Your task to perform on an android device: Go to ESPN.com Image 0: 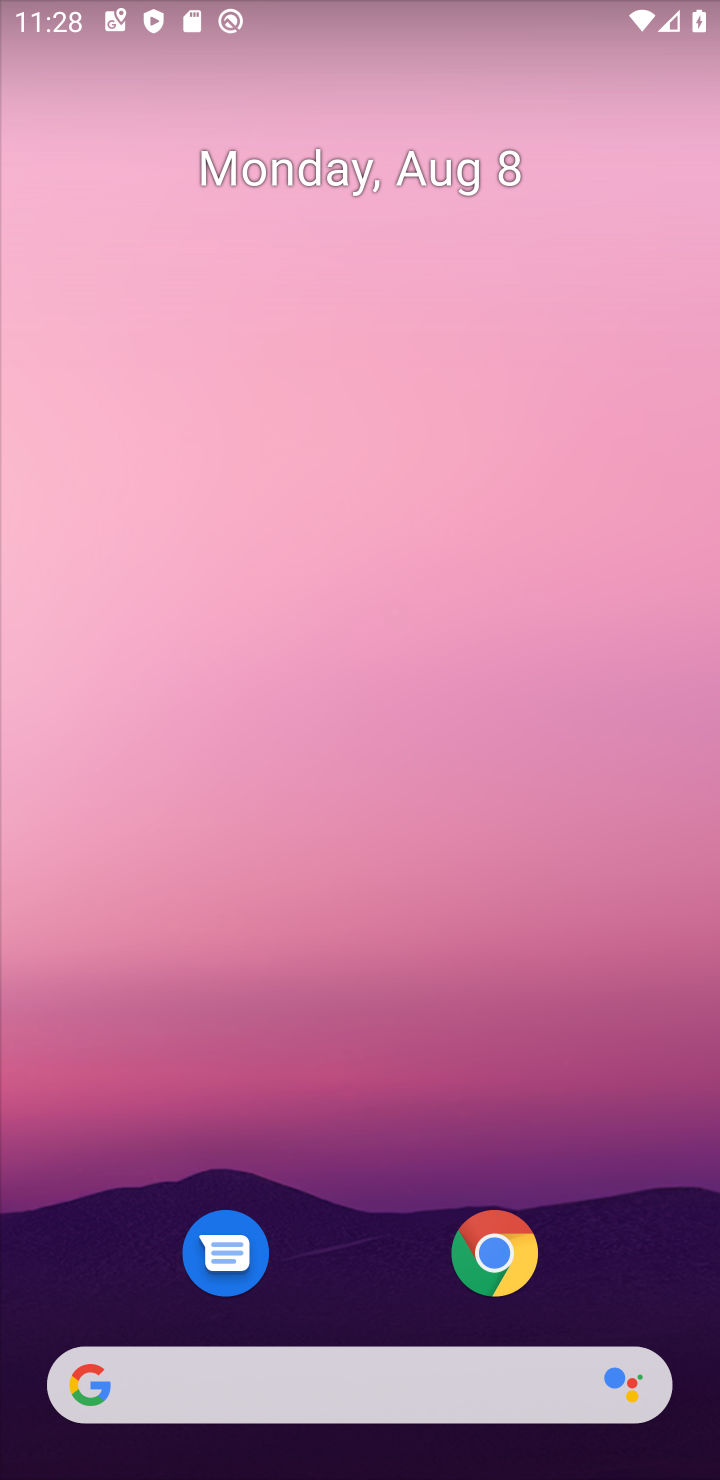
Step 0: click (365, 327)
Your task to perform on an android device: Go to ESPN.com Image 1: 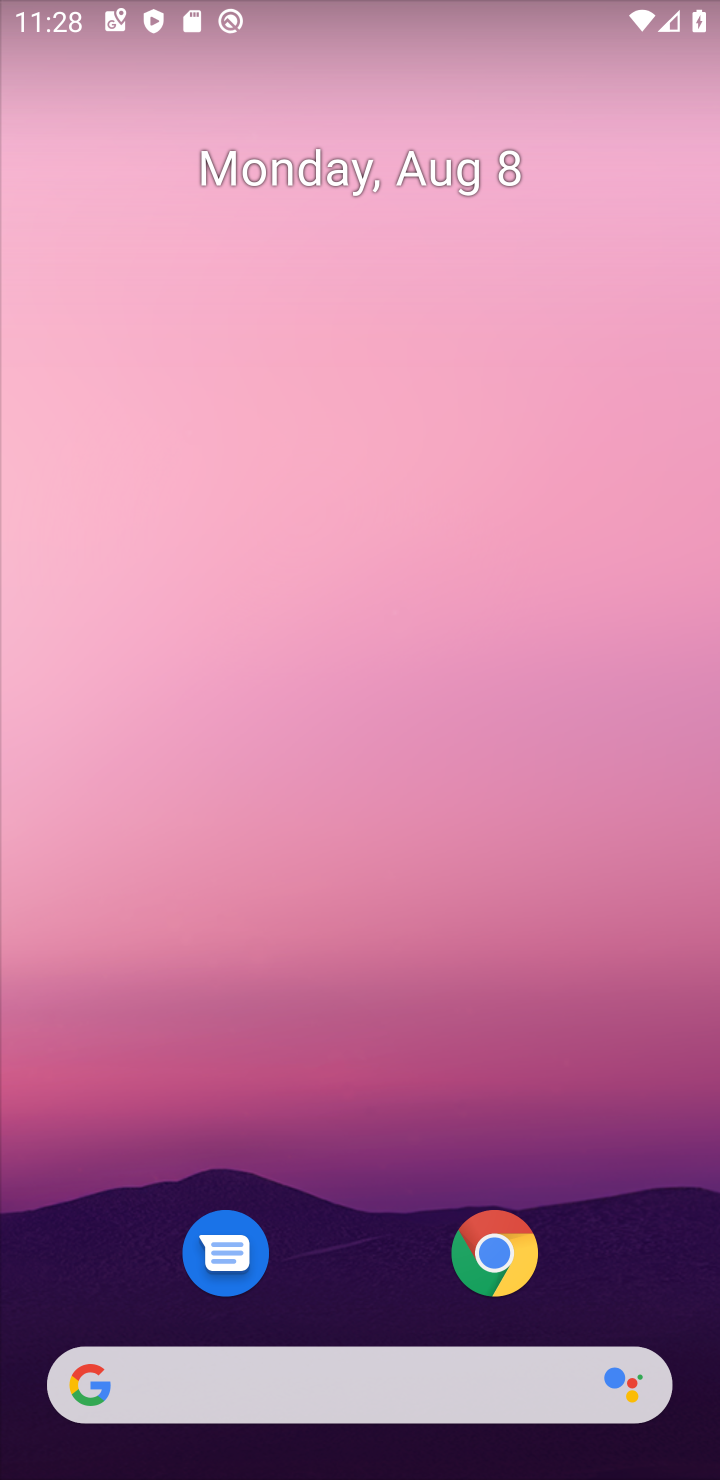
Step 1: drag from (368, 1206) to (370, 457)
Your task to perform on an android device: Go to ESPN.com Image 2: 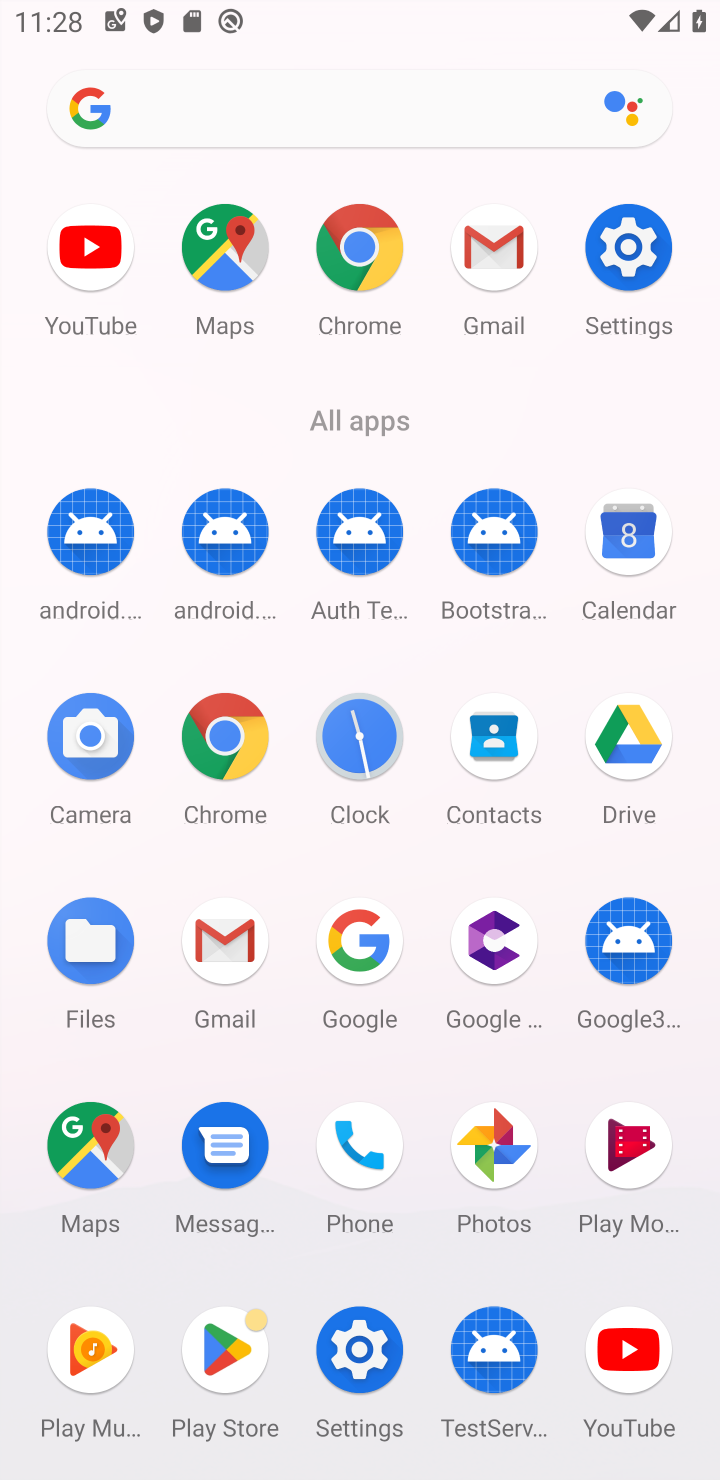
Step 2: click (333, 236)
Your task to perform on an android device: Go to ESPN.com Image 3: 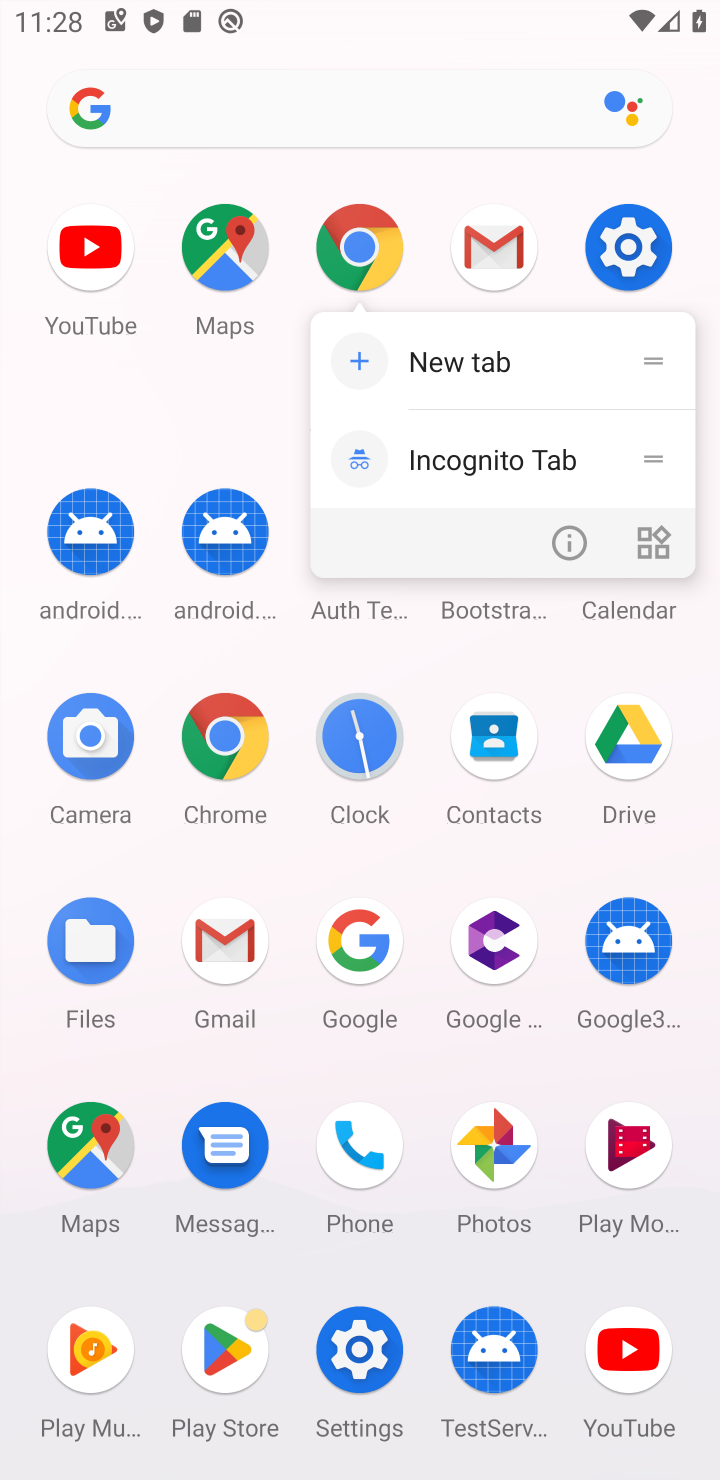
Step 3: click (341, 240)
Your task to perform on an android device: Go to ESPN.com Image 4: 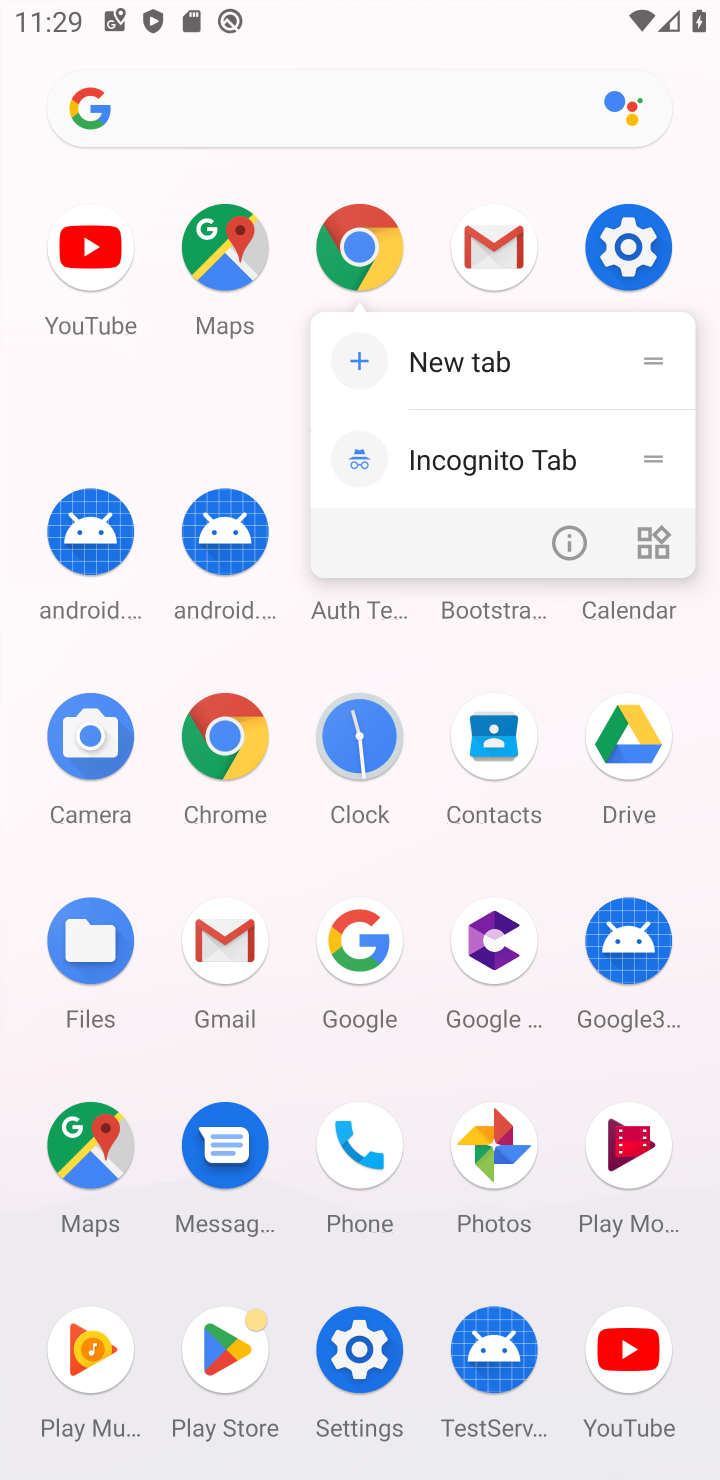
Step 4: click (376, 224)
Your task to perform on an android device: Go to ESPN.com Image 5: 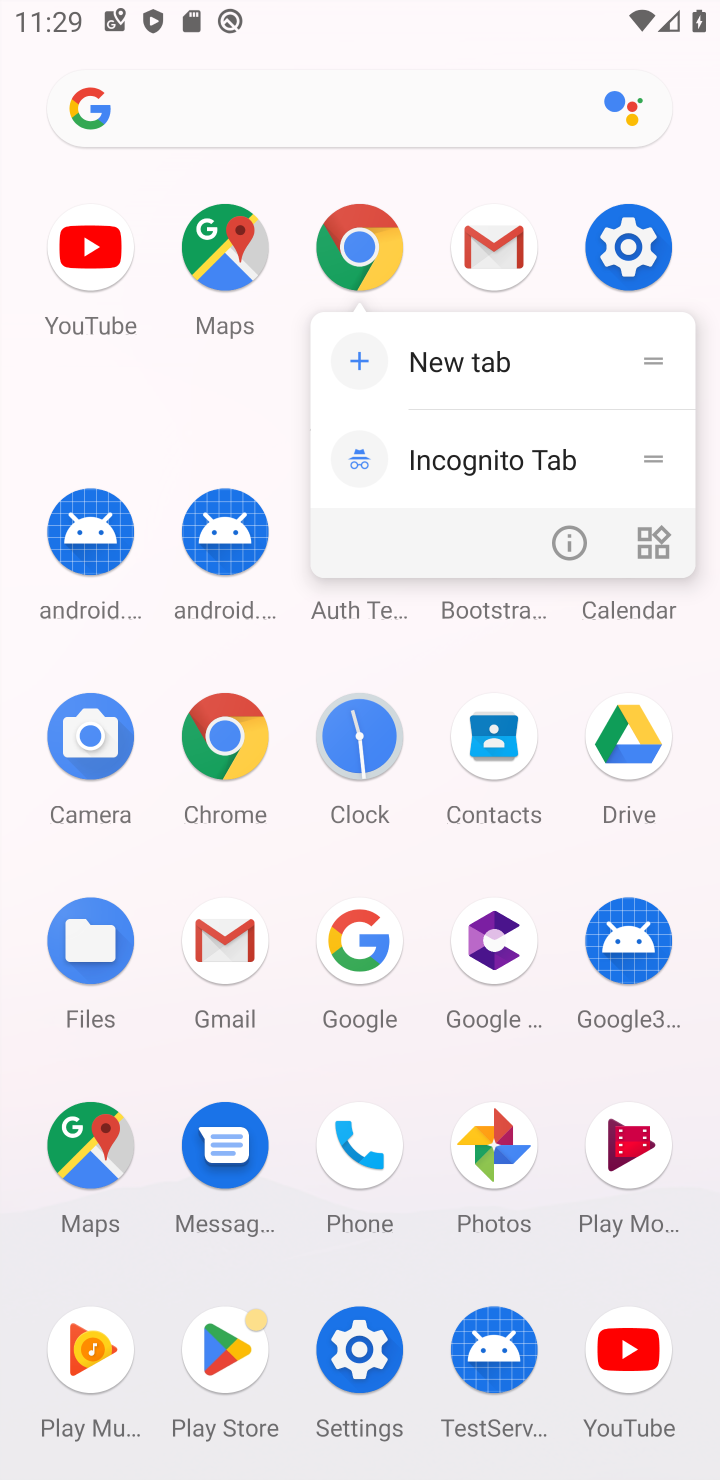
Step 5: click (376, 224)
Your task to perform on an android device: Go to ESPN.com Image 6: 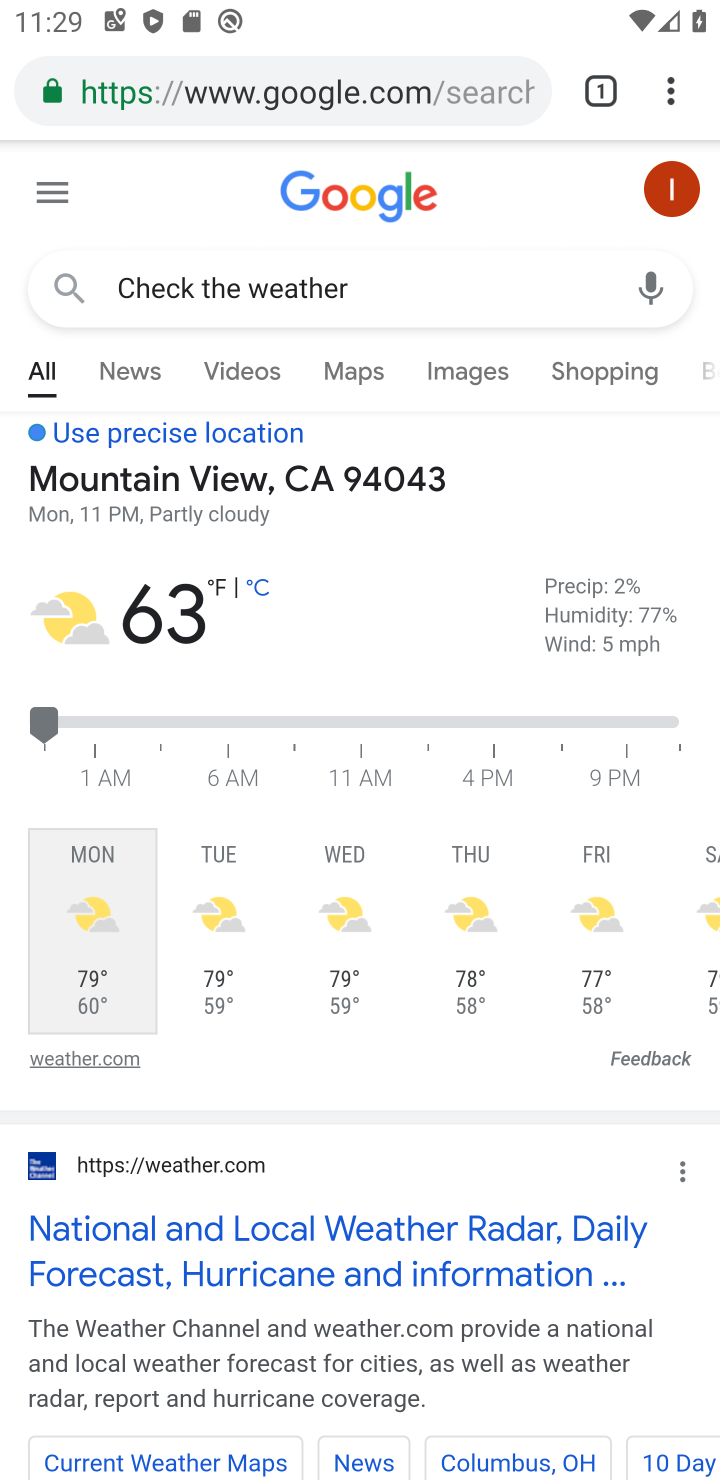
Step 6: click (660, 101)
Your task to perform on an android device: Go to ESPN.com Image 7: 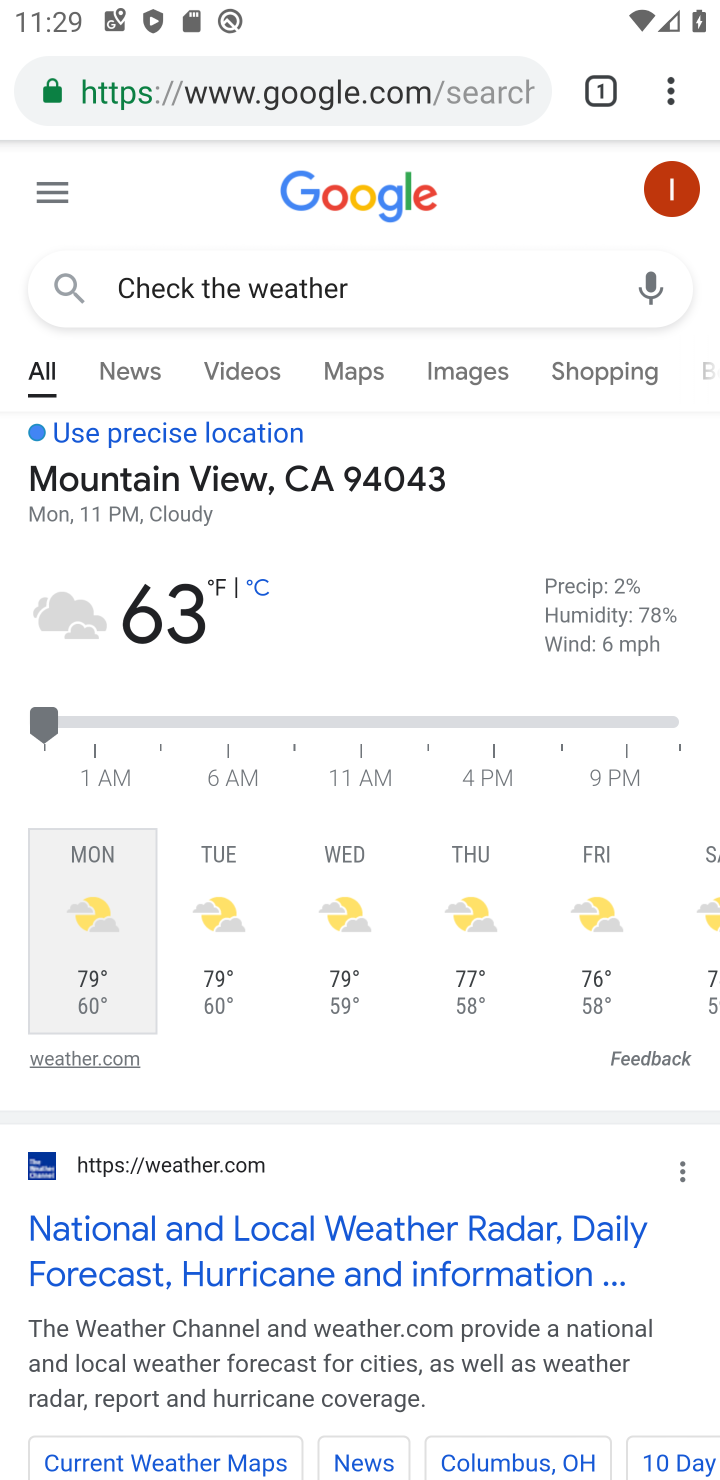
Step 7: click (646, 80)
Your task to perform on an android device: Go to ESPN.com Image 8: 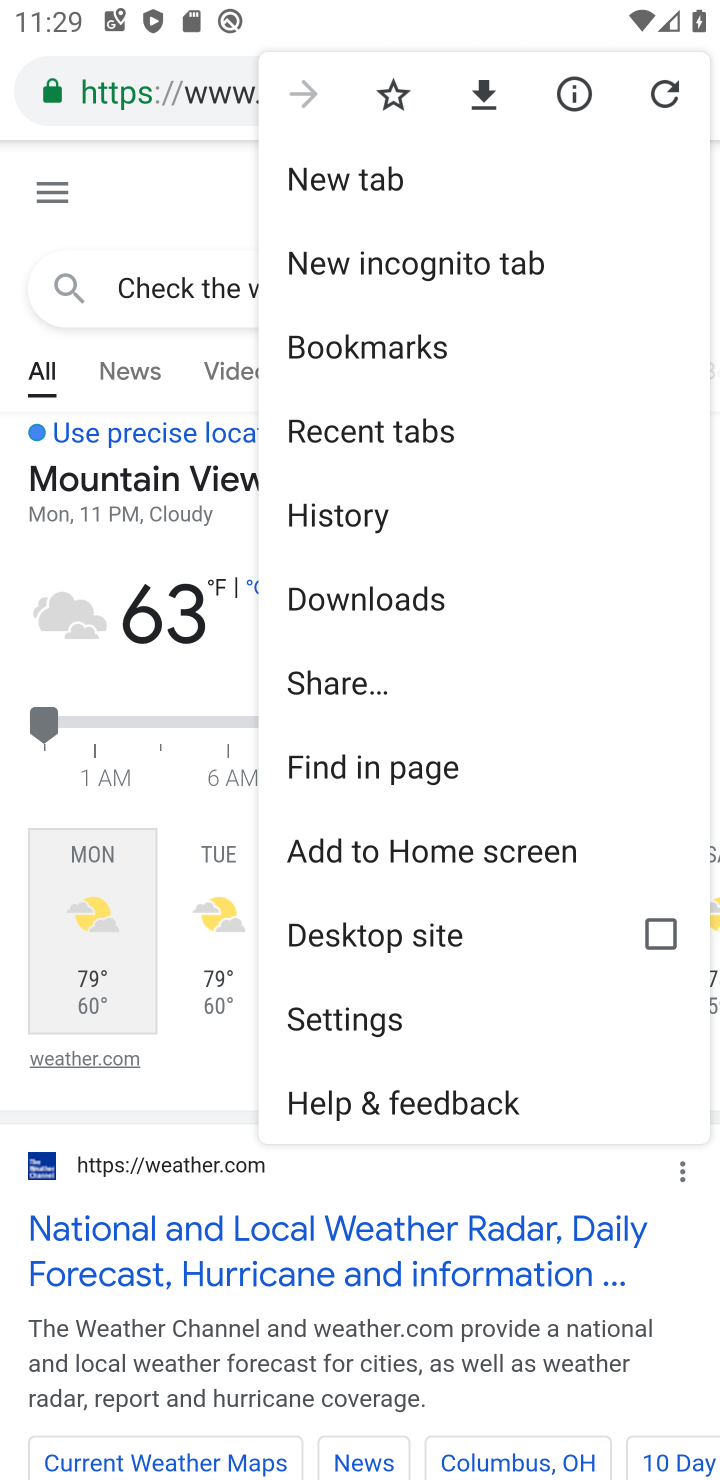
Step 8: click (310, 164)
Your task to perform on an android device: Go to ESPN.com Image 9: 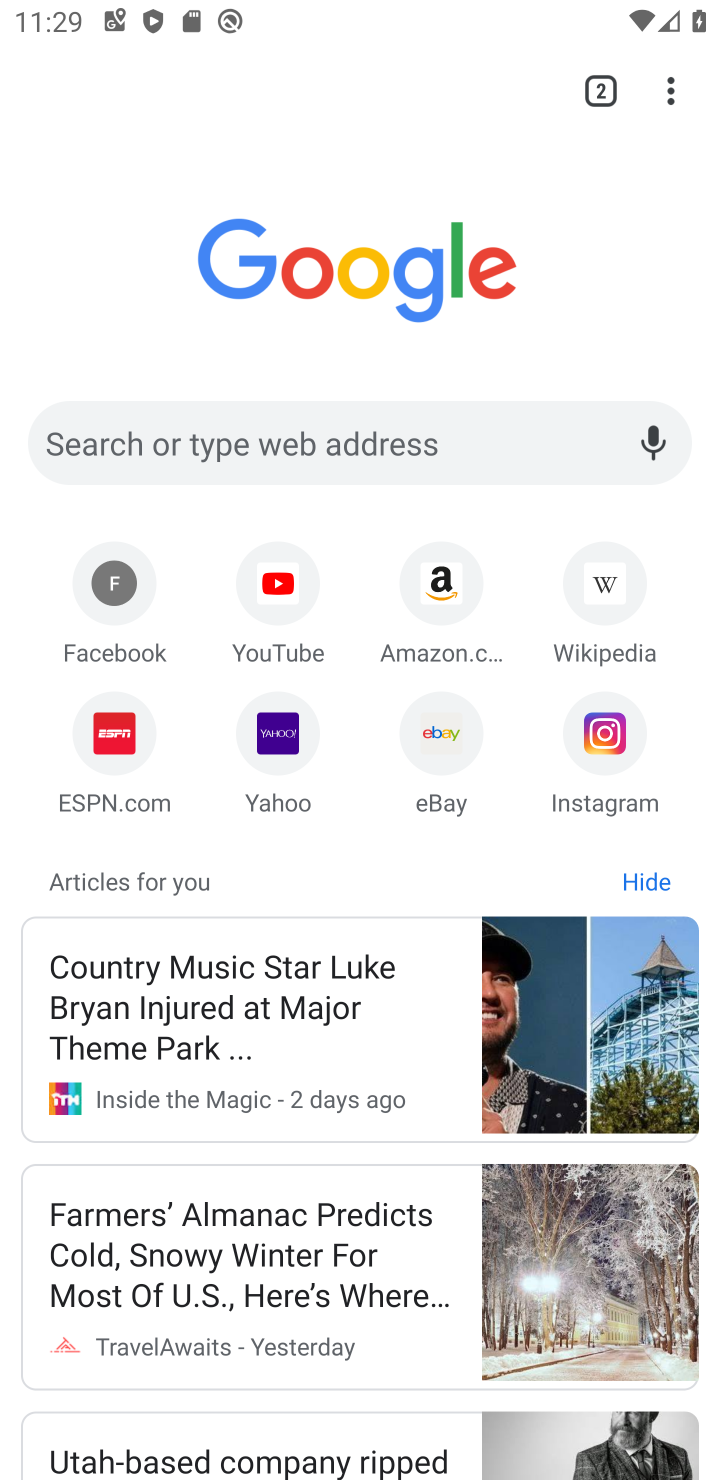
Step 9: click (102, 732)
Your task to perform on an android device: Go to ESPN.com Image 10: 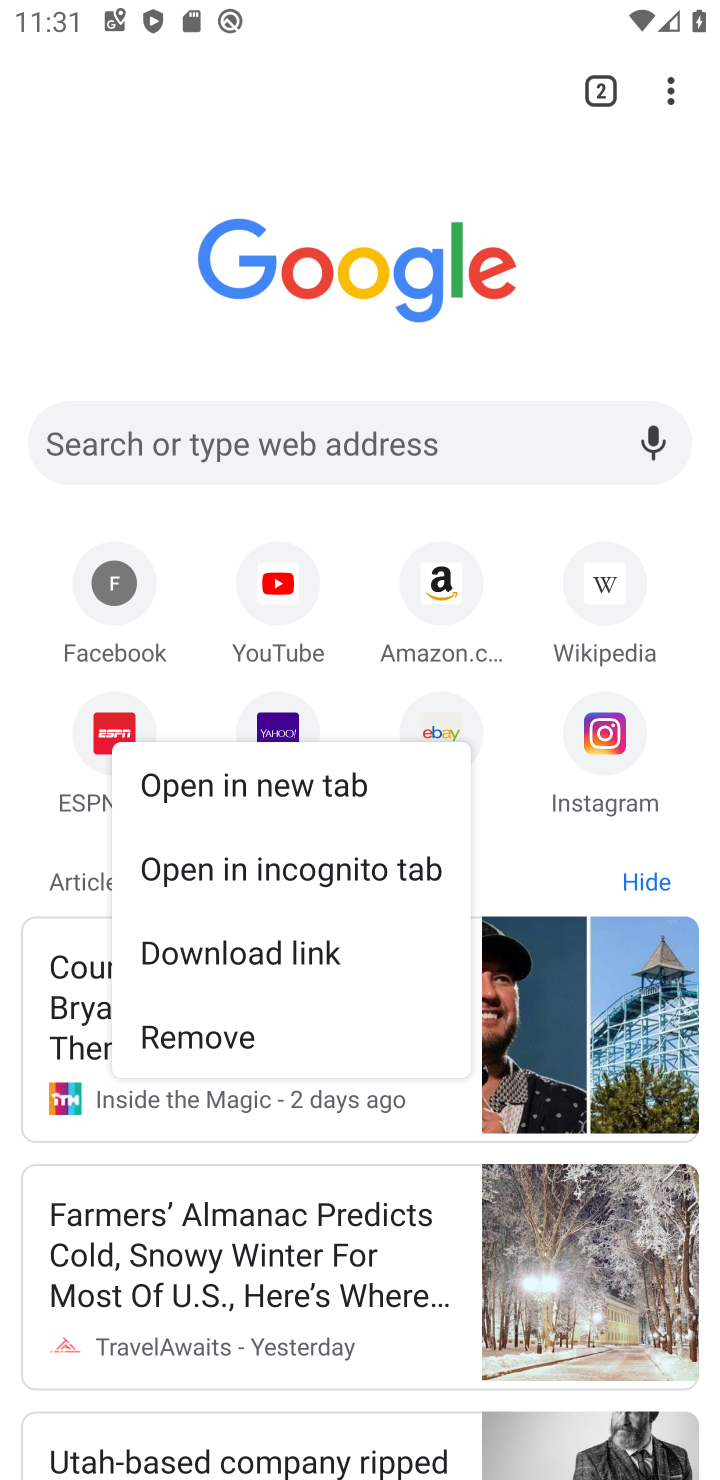
Step 10: click (122, 705)
Your task to perform on an android device: Go to ESPN.com Image 11: 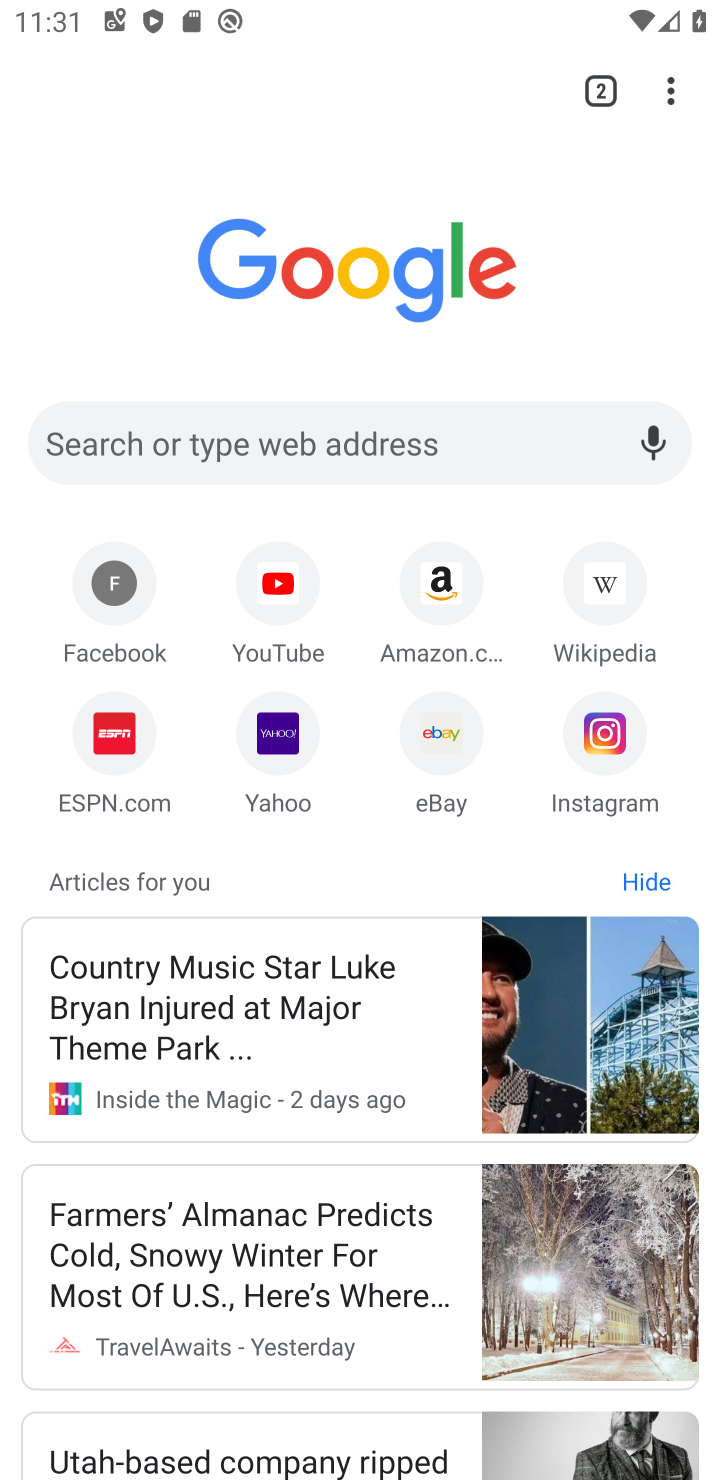
Step 11: click (122, 709)
Your task to perform on an android device: Go to ESPN.com Image 12: 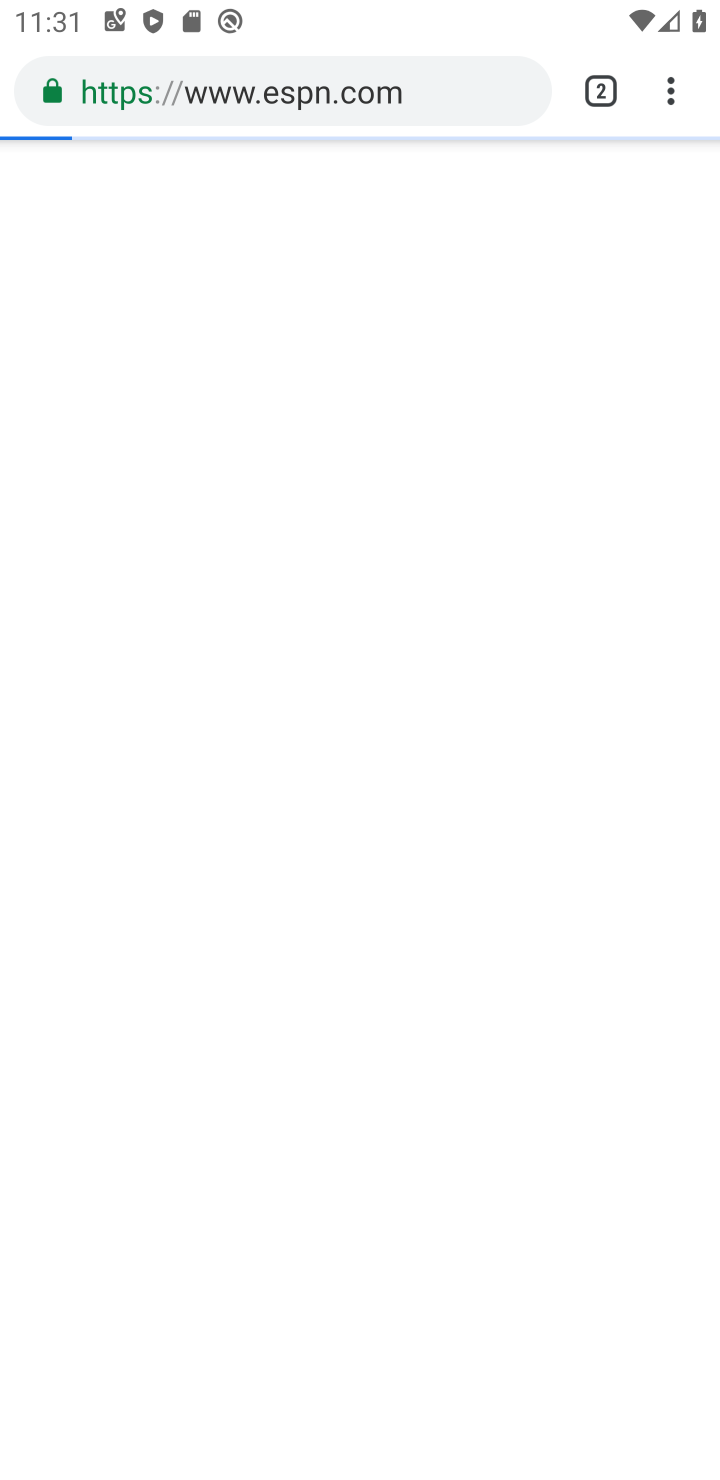
Step 12: task complete